Your task to perform on an android device: open sync settings in chrome Image 0: 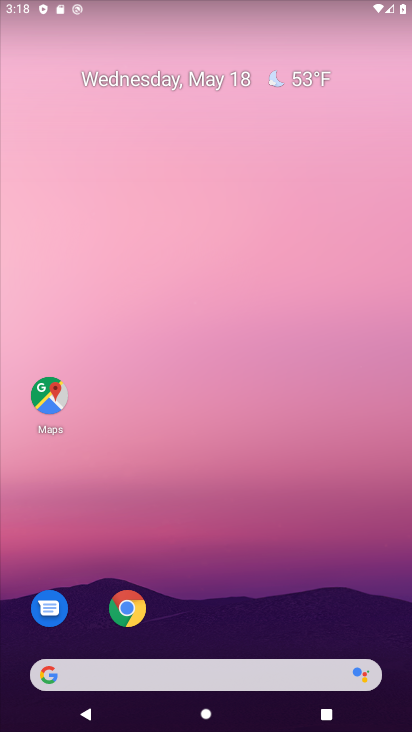
Step 0: drag from (237, 669) to (283, 216)
Your task to perform on an android device: open sync settings in chrome Image 1: 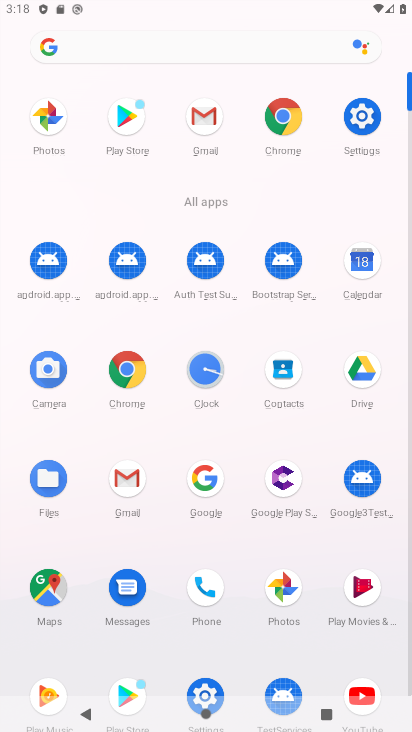
Step 1: click (126, 375)
Your task to perform on an android device: open sync settings in chrome Image 2: 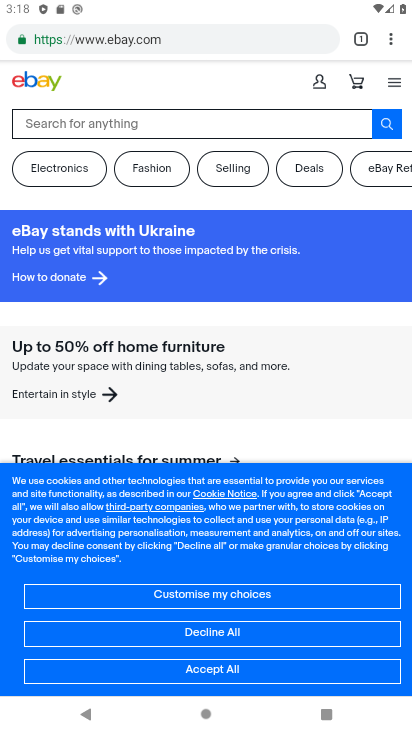
Step 2: drag from (389, 36) to (274, 479)
Your task to perform on an android device: open sync settings in chrome Image 3: 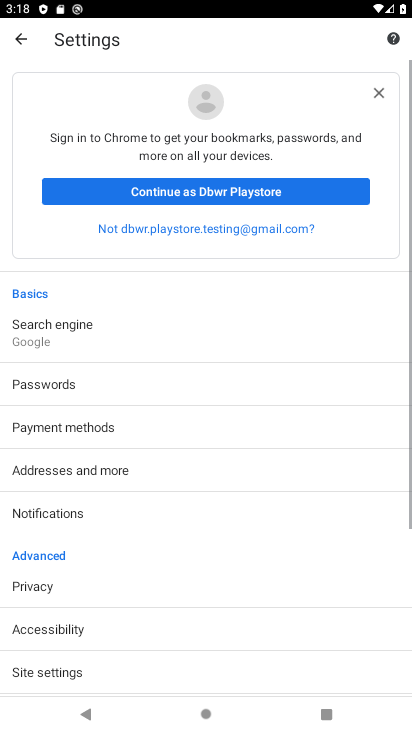
Step 3: drag from (247, 651) to (301, 295)
Your task to perform on an android device: open sync settings in chrome Image 4: 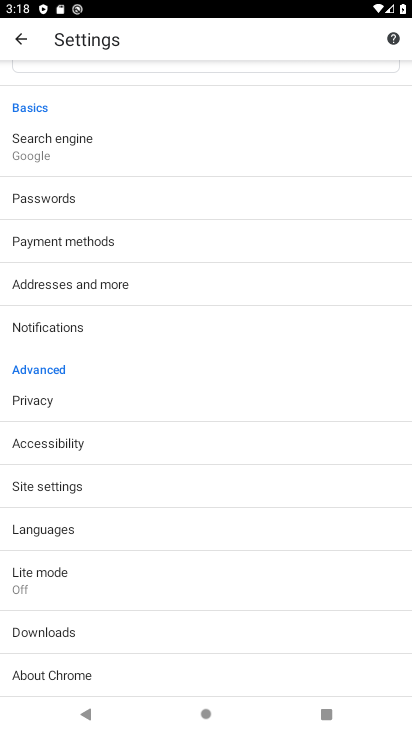
Step 4: click (103, 478)
Your task to perform on an android device: open sync settings in chrome Image 5: 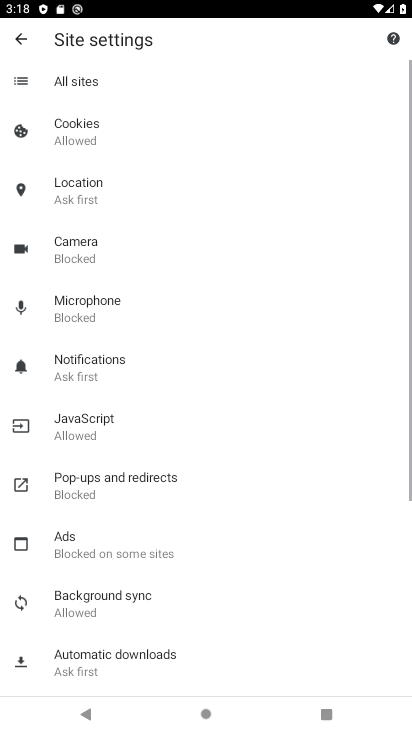
Step 5: drag from (228, 640) to (257, 446)
Your task to perform on an android device: open sync settings in chrome Image 6: 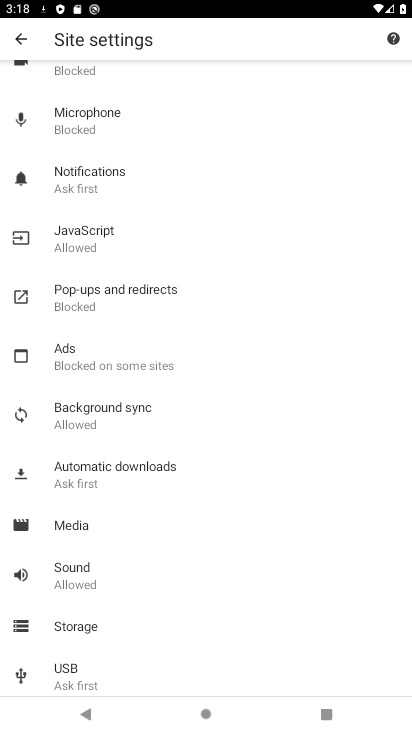
Step 6: click (110, 410)
Your task to perform on an android device: open sync settings in chrome Image 7: 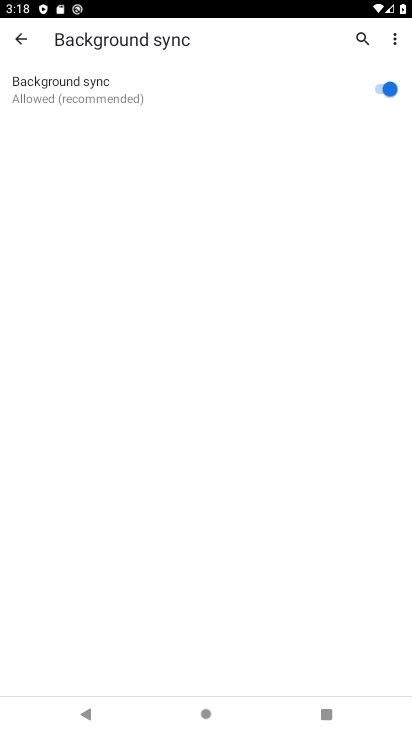
Step 7: task complete